Your task to perform on an android device: Go to notification settings Image 0: 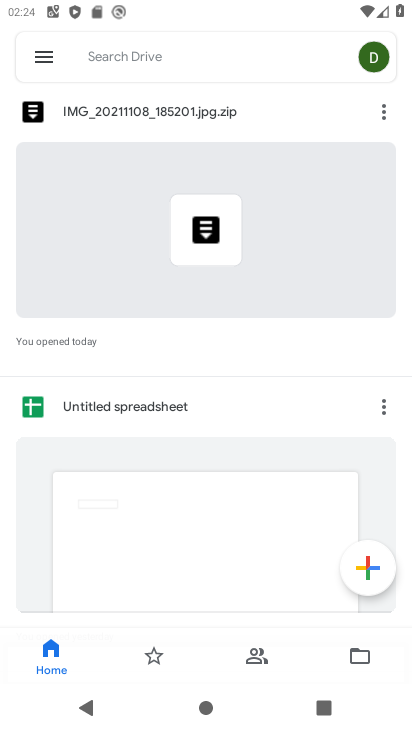
Step 0: press back button
Your task to perform on an android device: Go to notification settings Image 1: 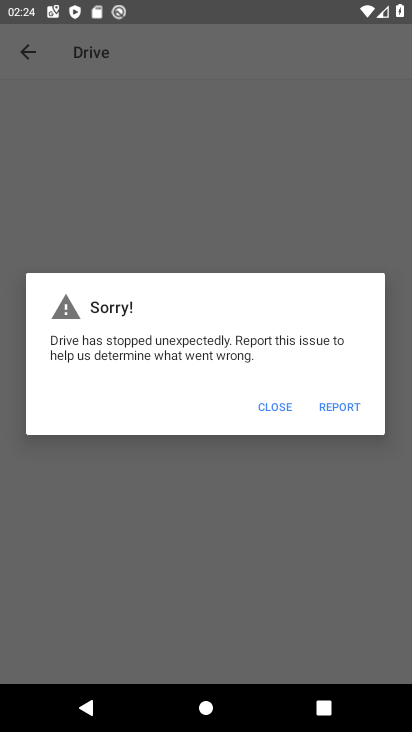
Step 1: press home button
Your task to perform on an android device: Go to notification settings Image 2: 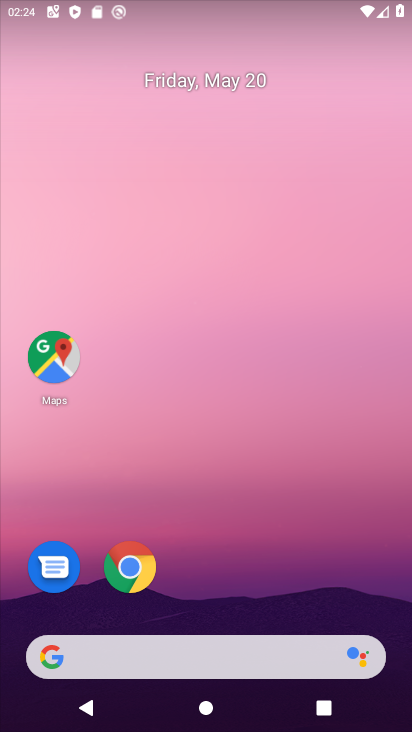
Step 2: drag from (280, 520) to (248, 47)
Your task to perform on an android device: Go to notification settings Image 3: 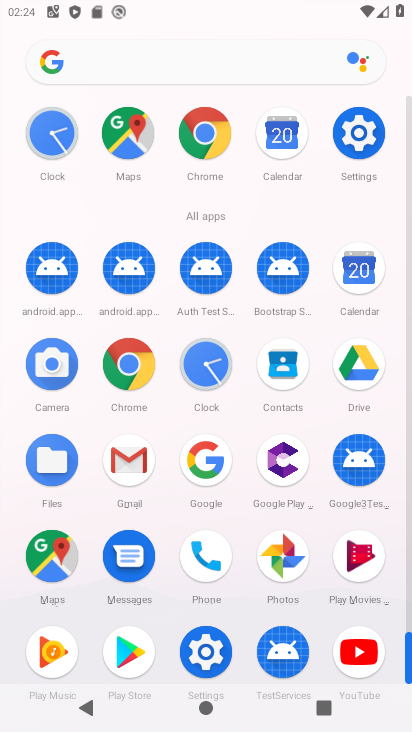
Step 3: click (203, 650)
Your task to perform on an android device: Go to notification settings Image 4: 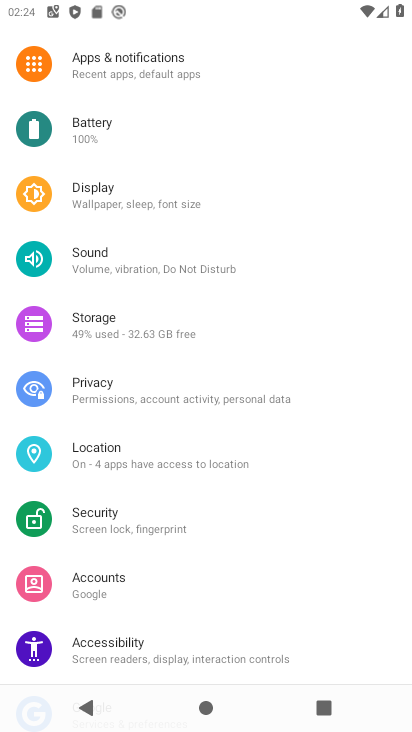
Step 4: click (147, 61)
Your task to perform on an android device: Go to notification settings Image 5: 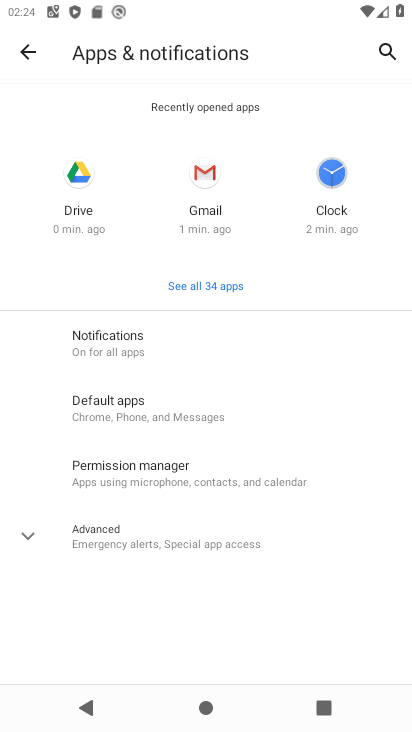
Step 5: click (50, 530)
Your task to perform on an android device: Go to notification settings Image 6: 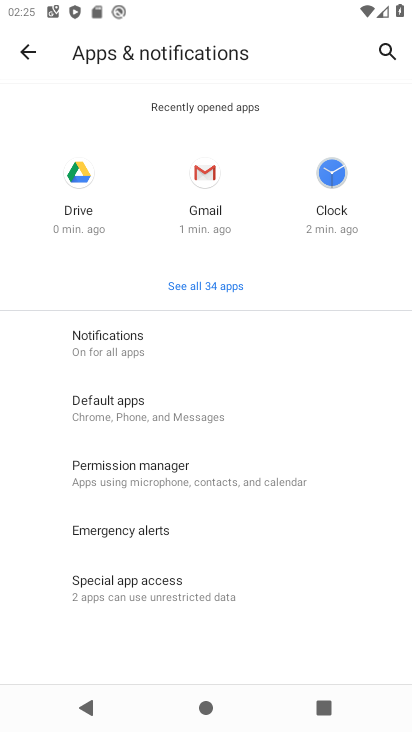
Step 6: click (184, 349)
Your task to perform on an android device: Go to notification settings Image 7: 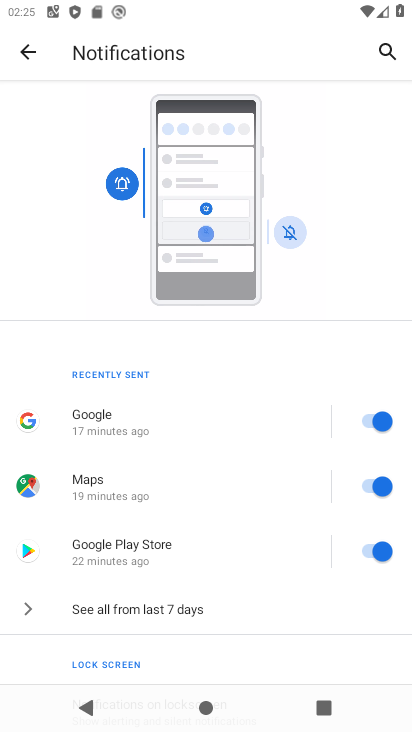
Step 7: drag from (254, 589) to (298, 228)
Your task to perform on an android device: Go to notification settings Image 8: 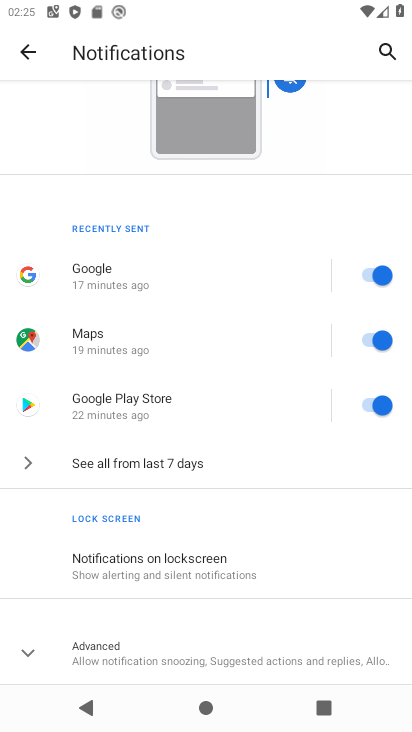
Step 8: drag from (279, 557) to (277, 274)
Your task to perform on an android device: Go to notification settings Image 9: 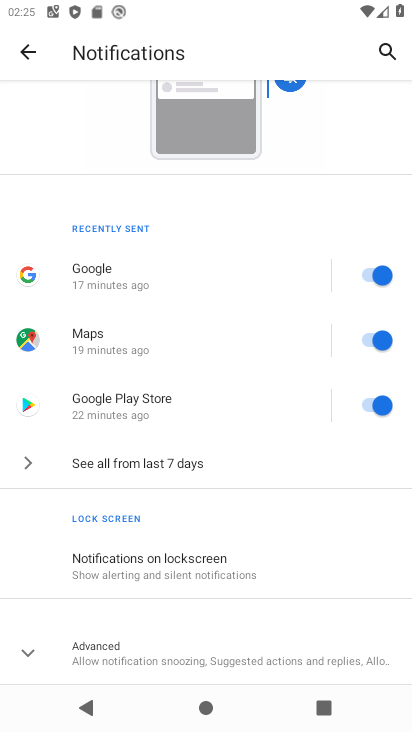
Step 9: click (22, 645)
Your task to perform on an android device: Go to notification settings Image 10: 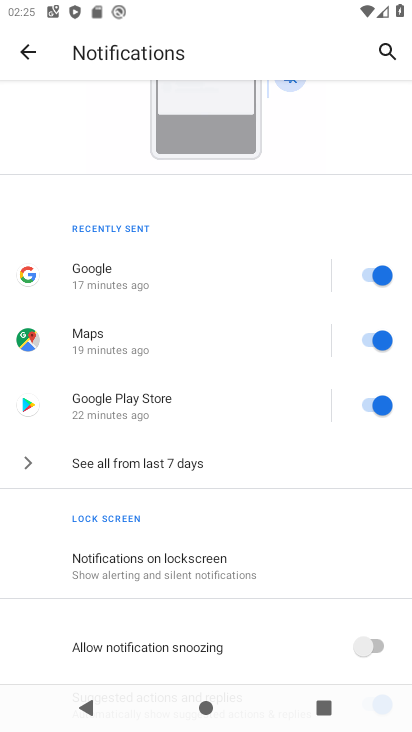
Step 10: task complete